Your task to perform on an android device: turn off location history Image 0: 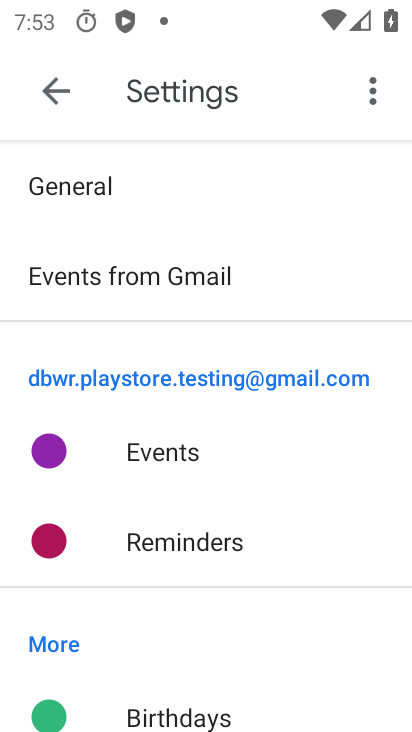
Step 0: press home button
Your task to perform on an android device: turn off location history Image 1: 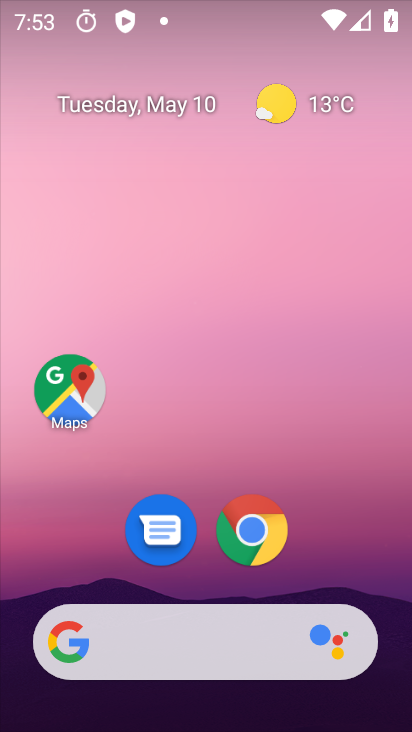
Step 1: drag from (310, 394) to (284, 60)
Your task to perform on an android device: turn off location history Image 2: 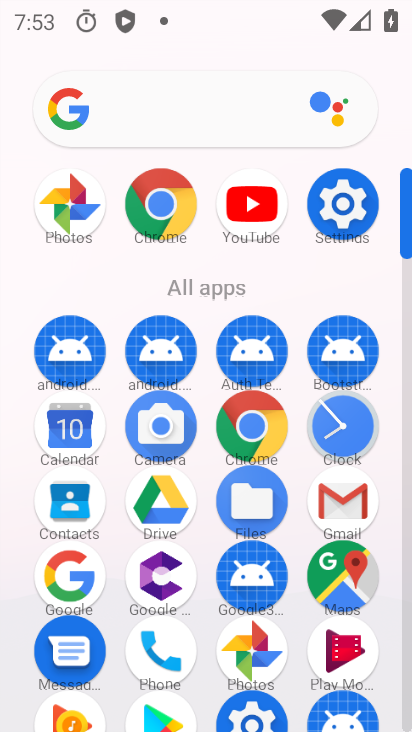
Step 2: click (351, 225)
Your task to perform on an android device: turn off location history Image 3: 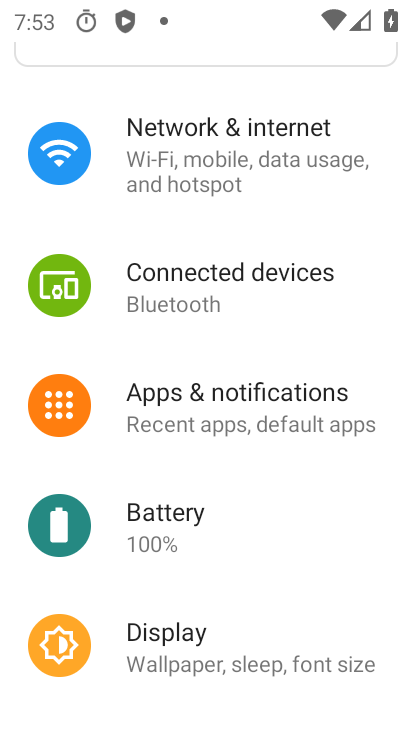
Step 3: drag from (232, 690) to (271, 142)
Your task to perform on an android device: turn off location history Image 4: 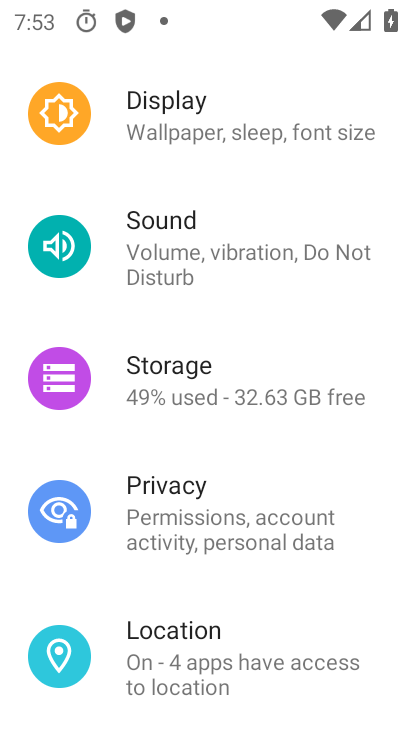
Step 4: drag from (273, 570) to (291, 279)
Your task to perform on an android device: turn off location history Image 5: 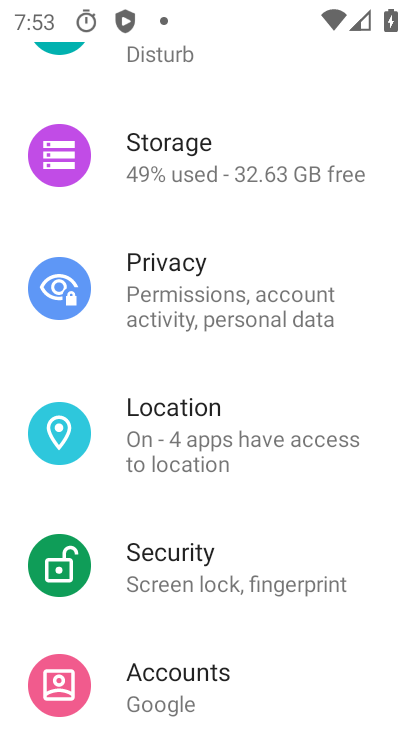
Step 5: click (230, 438)
Your task to perform on an android device: turn off location history Image 6: 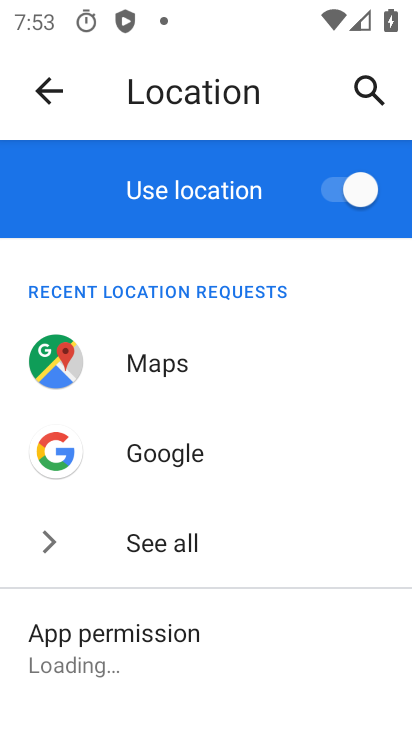
Step 6: drag from (260, 487) to (265, 38)
Your task to perform on an android device: turn off location history Image 7: 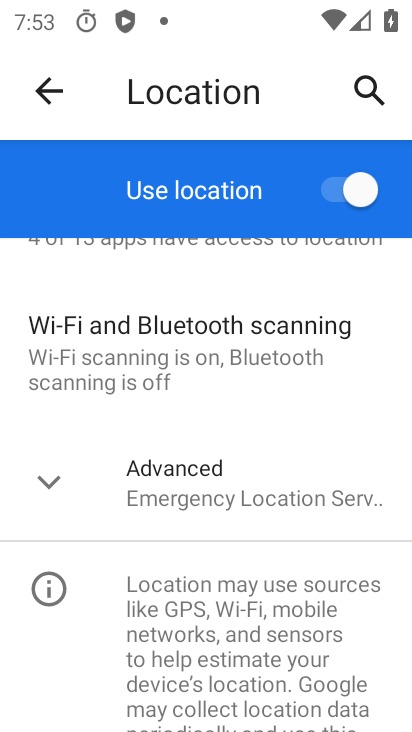
Step 7: click (214, 481)
Your task to perform on an android device: turn off location history Image 8: 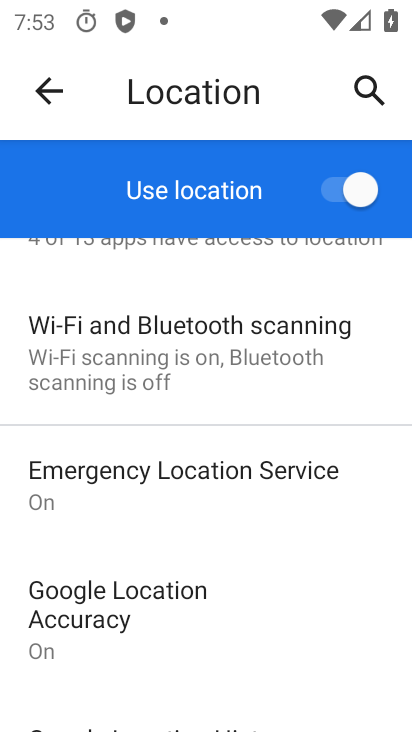
Step 8: drag from (322, 597) to (287, 119)
Your task to perform on an android device: turn off location history Image 9: 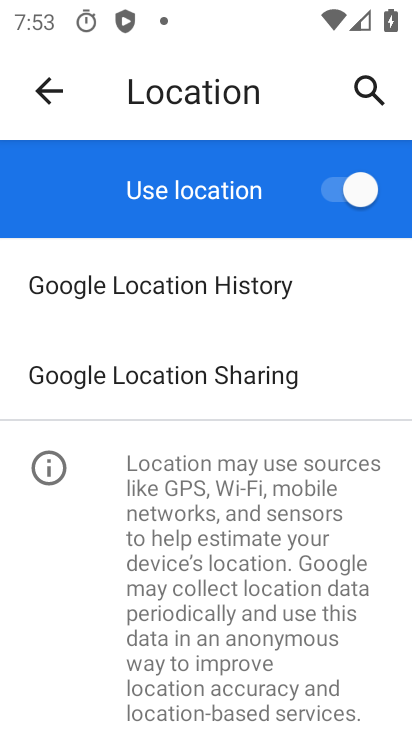
Step 9: click (209, 306)
Your task to perform on an android device: turn off location history Image 10: 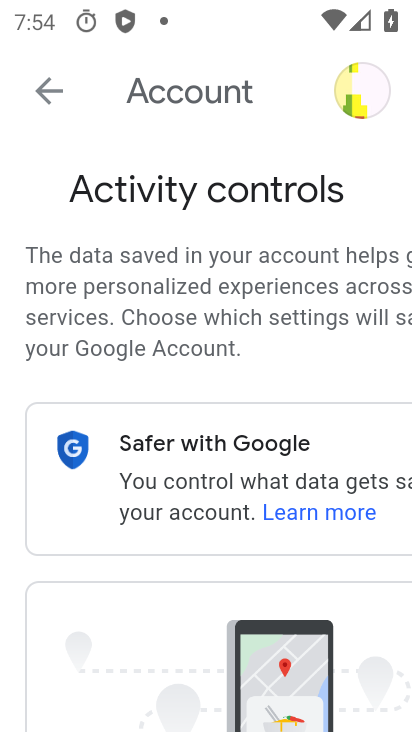
Step 10: drag from (353, 626) to (335, 221)
Your task to perform on an android device: turn off location history Image 11: 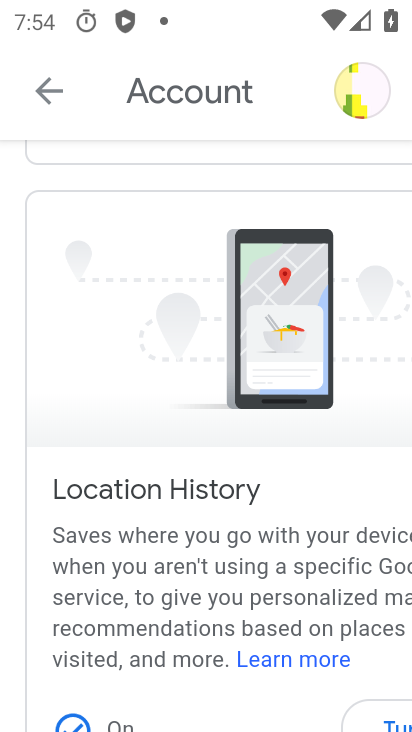
Step 11: drag from (349, 573) to (402, 103)
Your task to perform on an android device: turn off location history Image 12: 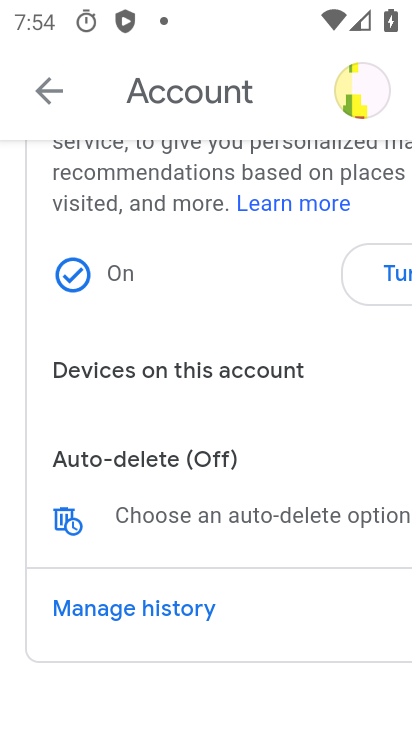
Step 12: click (391, 272)
Your task to perform on an android device: turn off location history Image 13: 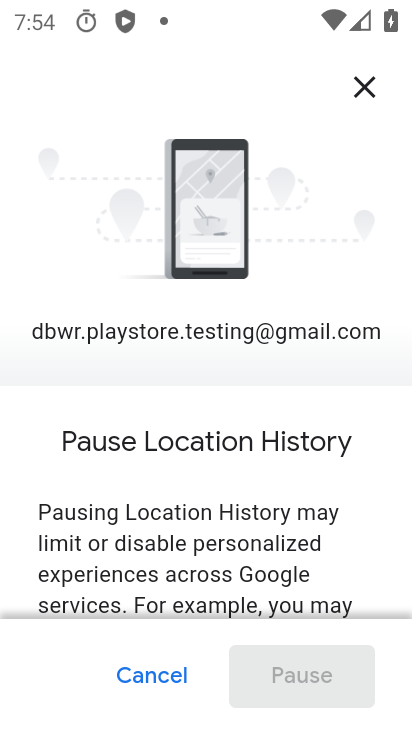
Step 13: drag from (260, 579) to (310, 234)
Your task to perform on an android device: turn off location history Image 14: 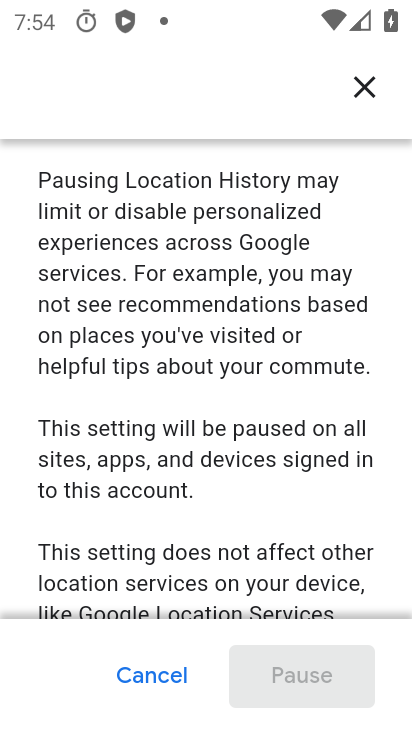
Step 14: drag from (337, 523) to (323, 202)
Your task to perform on an android device: turn off location history Image 15: 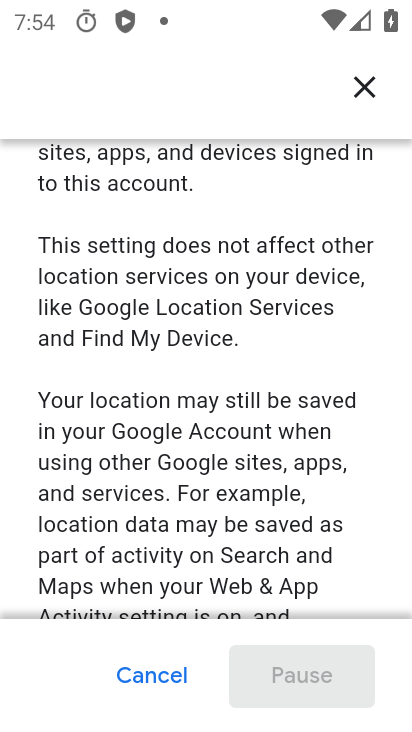
Step 15: drag from (283, 615) to (300, 259)
Your task to perform on an android device: turn off location history Image 16: 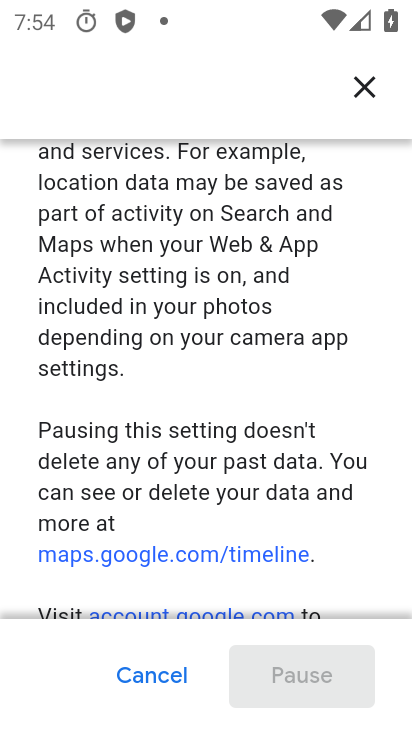
Step 16: drag from (255, 558) to (246, 261)
Your task to perform on an android device: turn off location history Image 17: 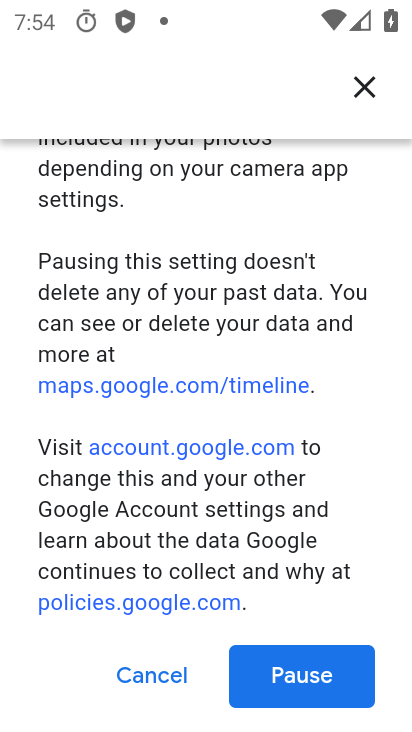
Step 17: click (280, 690)
Your task to perform on an android device: turn off location history Image 18: 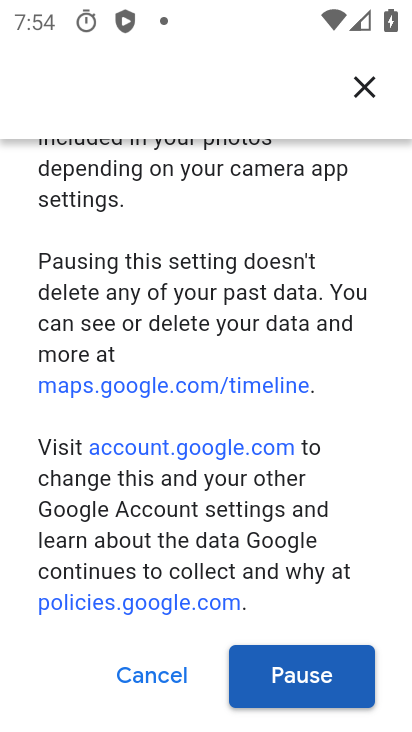
Step 18: click (282, 686)
Your task to perform on an android device: turn off location history Image 19: 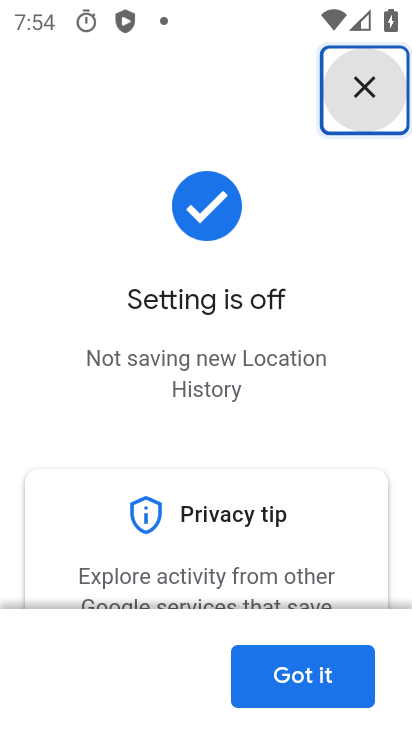
Step 19: task complete